Your task to perform on an android device: allow notifications from all sites in the chrome app Image 0: 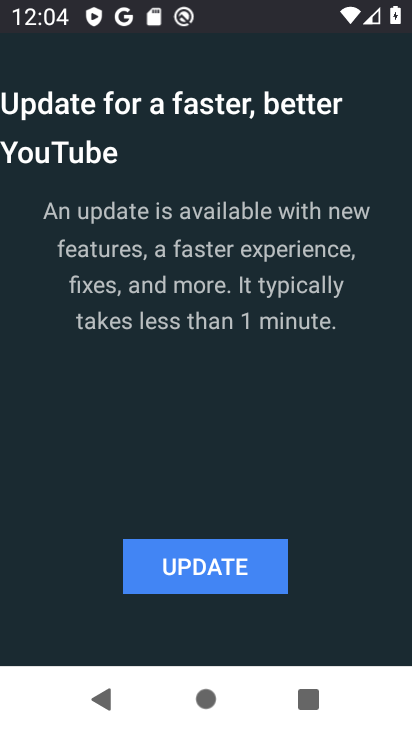
Step 0: press back button
Your task to perform on an android device: allow notifications from all sites in the chrome app Image 1: 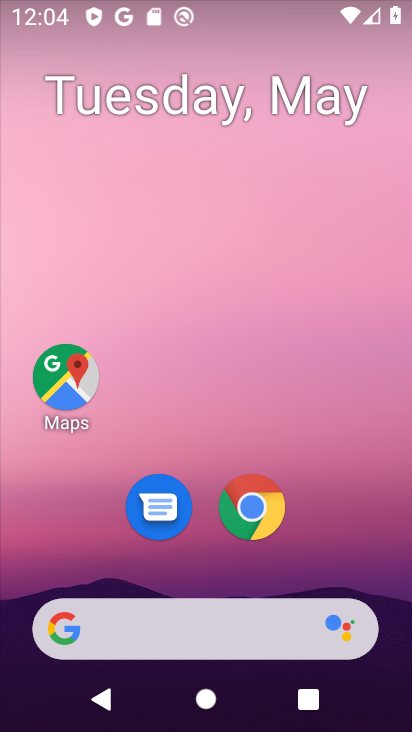
Step 1: drag from (374, 504) to (392, 207)
Your task to perform on an android device: allow notifications from all sites in the chrome app Image 2: 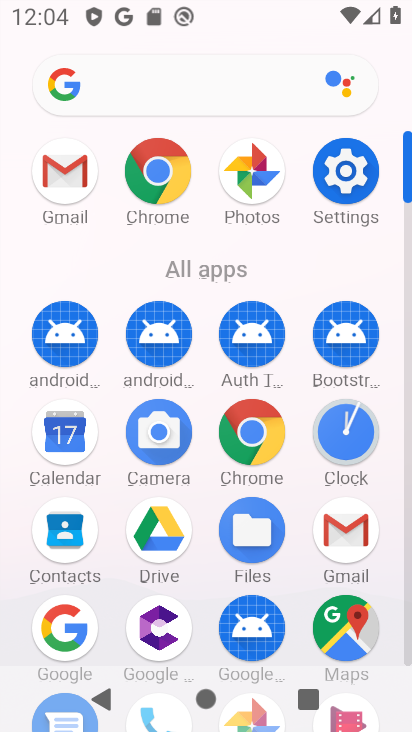
Step 2: click (261, 427)
Your task to perform on an android device: allow notifications from all sites in the chrome app Image 3: 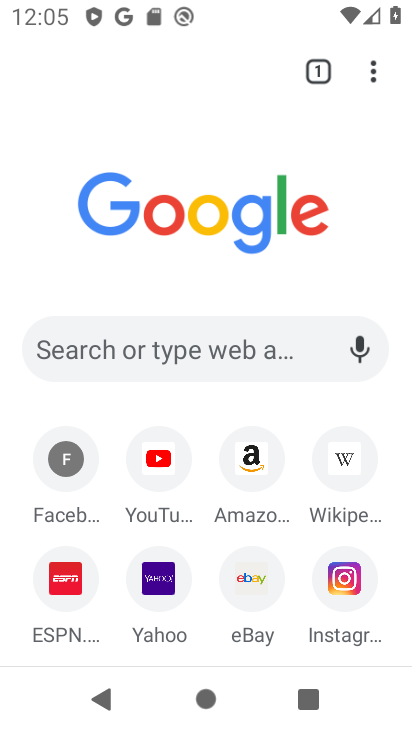
Step 3: click (371, 77)
Your task to perform on an android device: allow notifications from all sites in the chrome app Image 4: 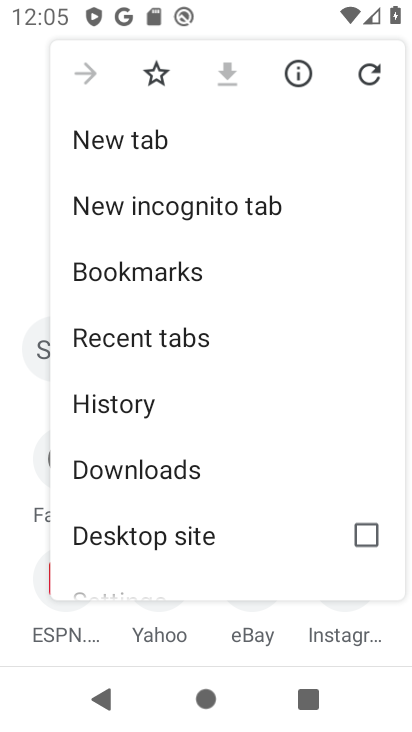
Step 4: drag from (265, 494) to (296, 318)
Your task to perform on an android device: allow notifications from all sites in the chrome app Image 5: 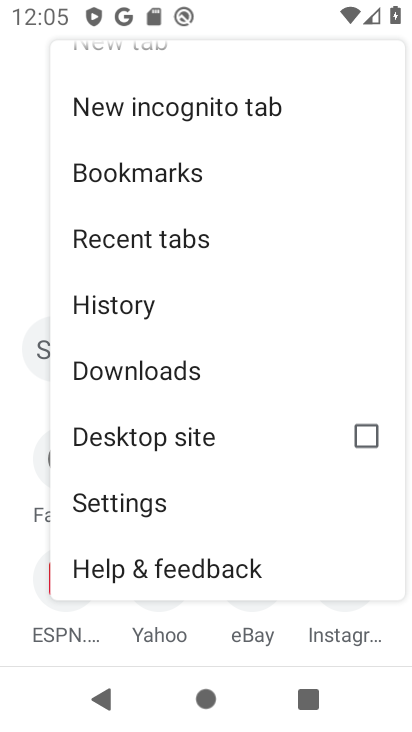
Step 5: drag from (274, 461) to (269, 329)
Your task to perform on an android device: allow notifications from all sites in the chrome app Image 6: 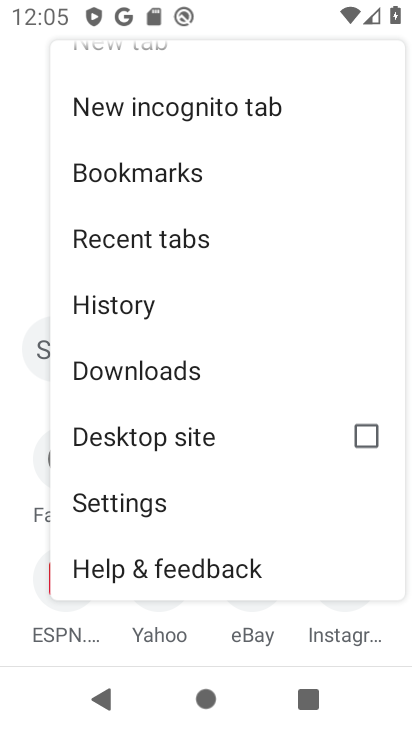
Step 6: click (150, 517)
Your task to perform on an android device: allow notifications from all sites in the chrome app Image 7: 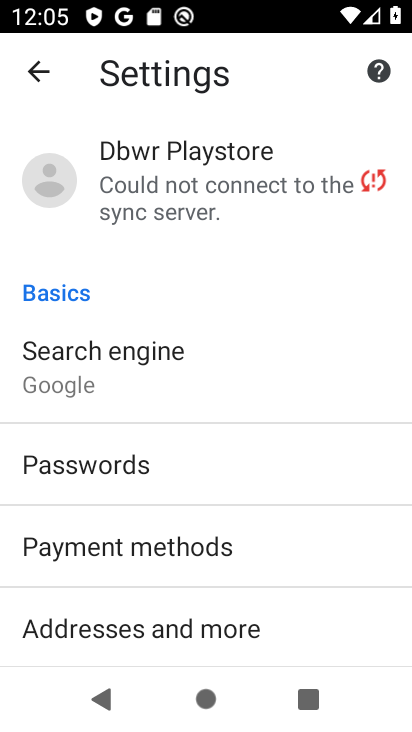
Step 7: drag from (329, 600) to (339, 397)
Your task to perform on an android device: allow notifications from all sites in the chrome app Image 8: 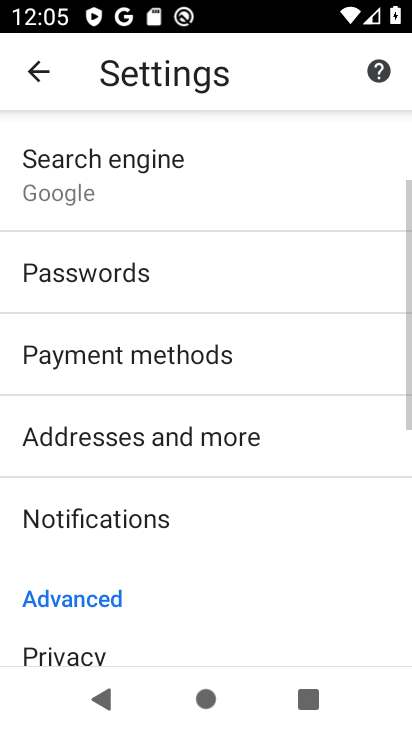
Step 8: drag from (334, 588) to (329, 433)
Your task to perform on an android device: allow notifications from all sites in the chrome app Image 9: 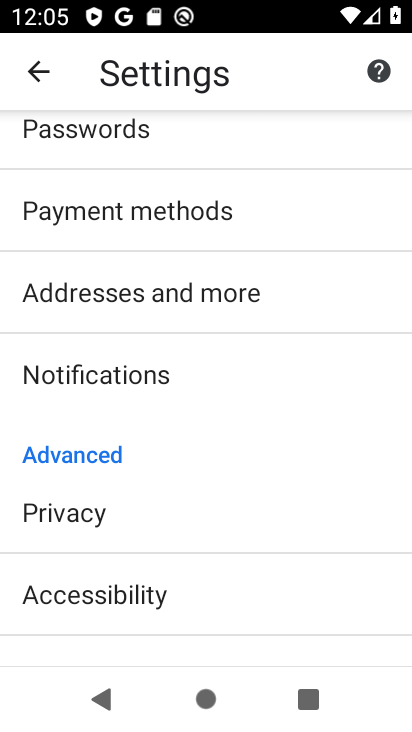
Step 9: drag from (322, 592) to (332, 444)
Your task to perform on an android device: allow notifications from all sites in the chrome app Image 10: 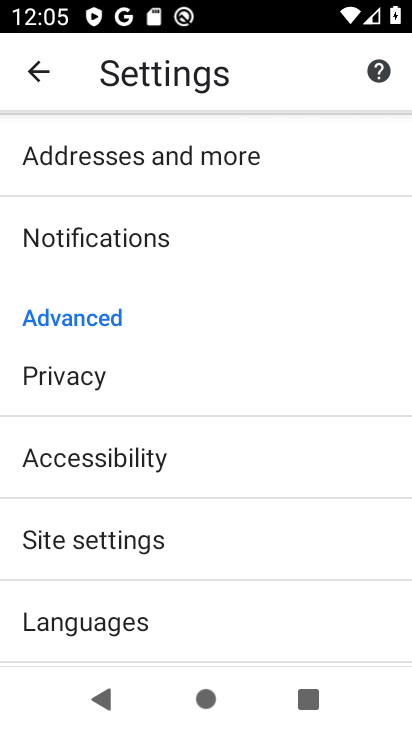
Step 10: drag from (286, 559) to (286, 395)
Your task to perform on an android device: allow notifications from all sites in the chrome app Image 11: 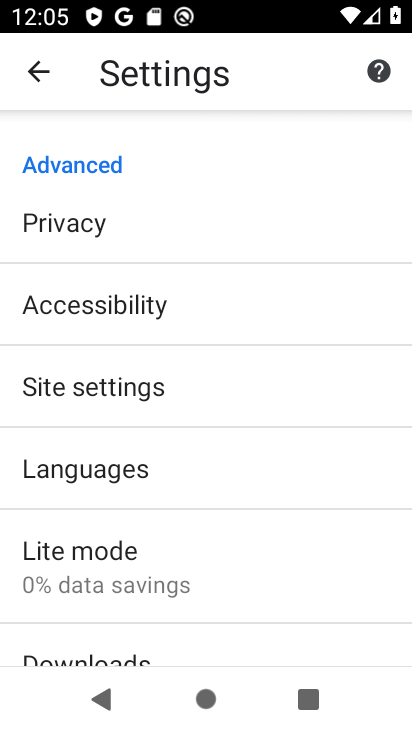
Step 11: drag from (286, 558) to (303, 373)
Your task to perform on an android device: allow notifications from all sites in the chrome app Image 12: 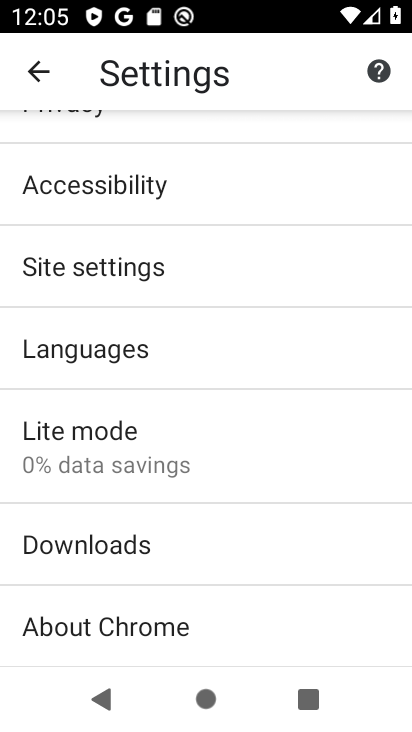
Step 12: drag from (271, 595) to (287, 450)
Your task to perform on an android device: allow notifications from all sites in the chrome app Image 13: 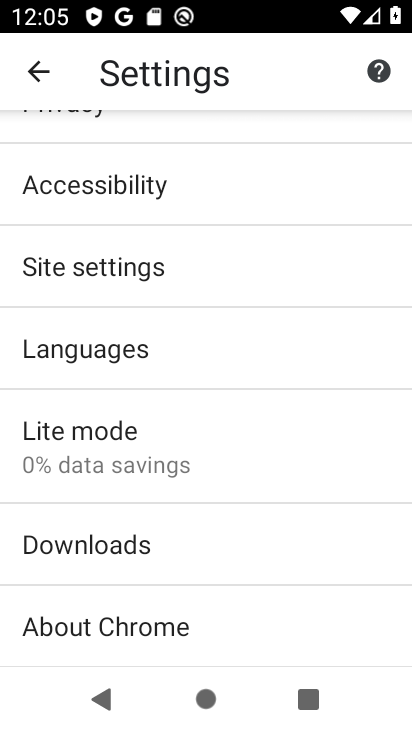
Step 13: click (174, 278)
Your task to perform on an android device: allow notifications from all sites in the chrome app Image 14: 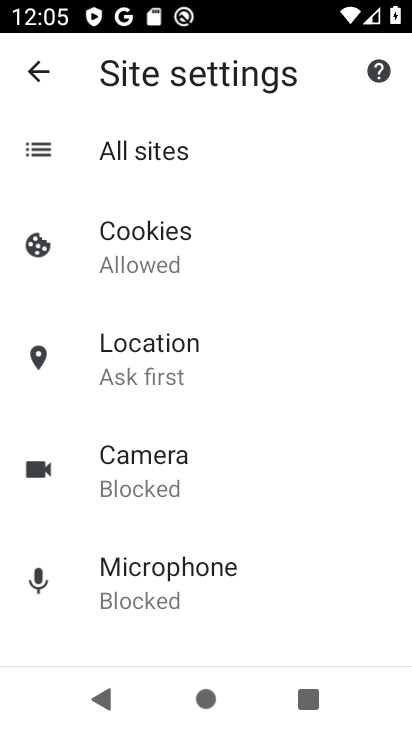
Step 14: drag from (327, 577) to (330, 382)
Your task to perform on an android device: allow notifications from all sites in the chrome app Image 15: 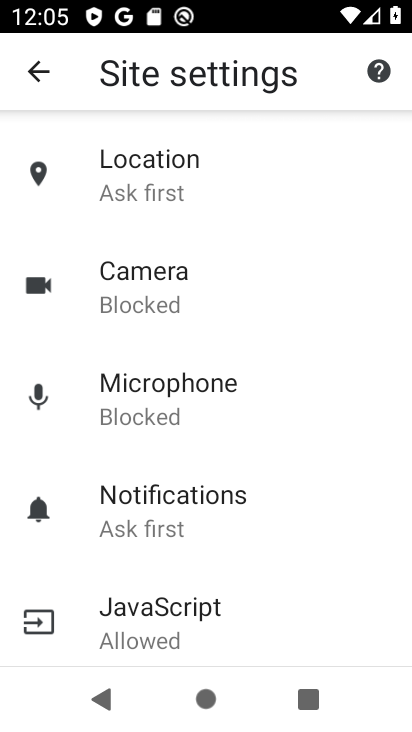
Step 15: drag from (303, 575) to (320, 430)
Your task to perform on an android device: allow notifications from all sites in the chrome app Image 16: 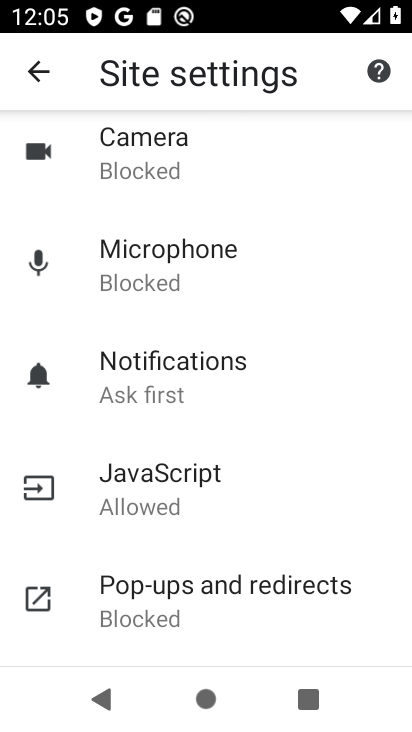
Step 16: drag from (315, 631) to (325, 457)
Your task to perform on an android device: allow notifications from all sites in the chrome app Image 17: 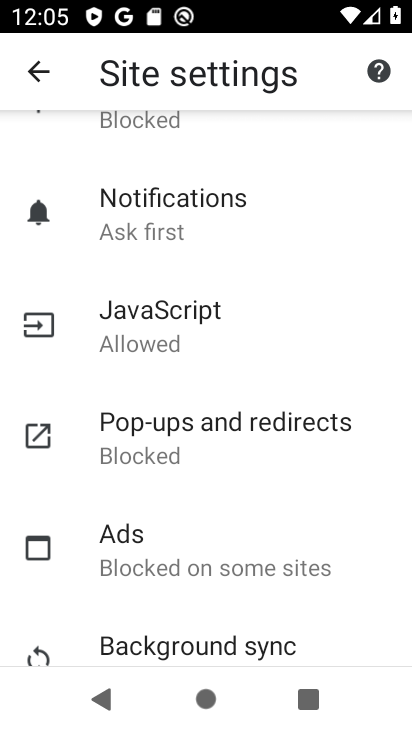
Step 17: drag from (337, 628) to (358, 478)
Your task to perform on an android device: allow notifications from all sites in the chrome app Image 18: 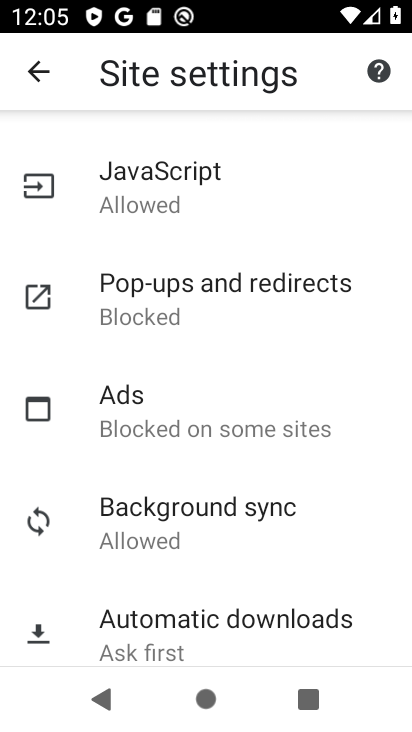
Step 18: drag from (333, 577) to (353, 450)
Your task to perform on an android device: allow notifications from all sites in the chrome app Image 19: 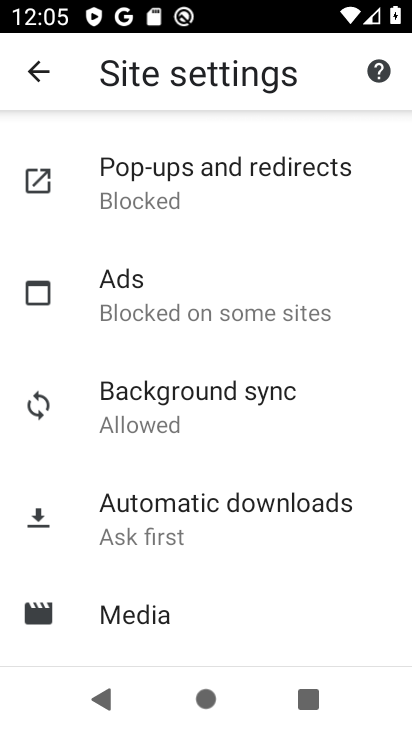
Step 19: drag from (338, 523) to (347, 364)
Your task to perform on an android device: allow notifications from all sites in the chrome app Image 20: 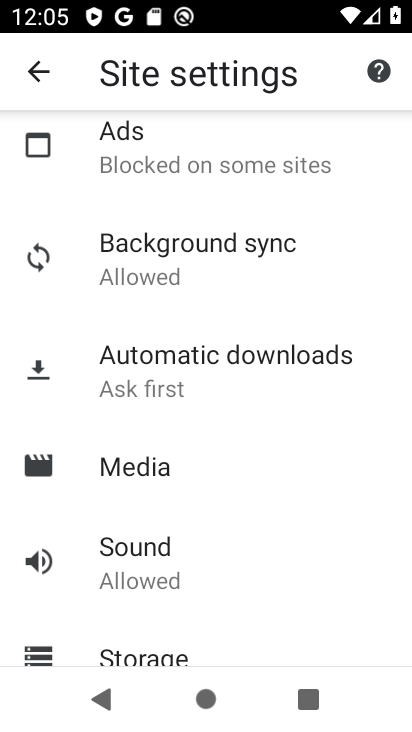
Step 20: drag from (326, 587) to (357, 407)
Your task to perform on an android device: allow notifications from all sites in the chrome app Image 21: 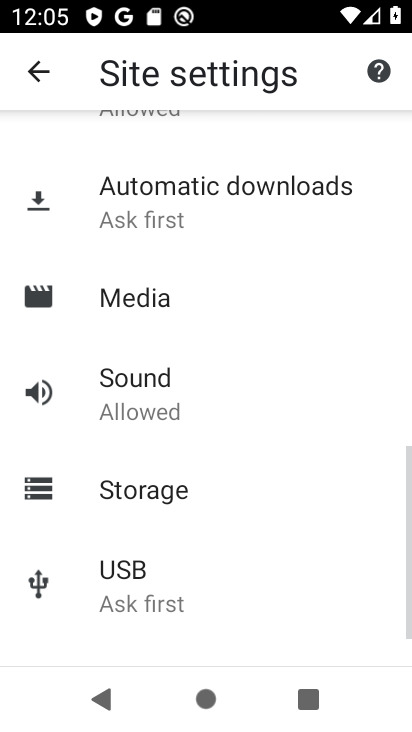
Step 21: drag from (309, 594) to (328, 427)
Your task to perform on an android device: allow notifications from all sites in the chrome app Image 22: 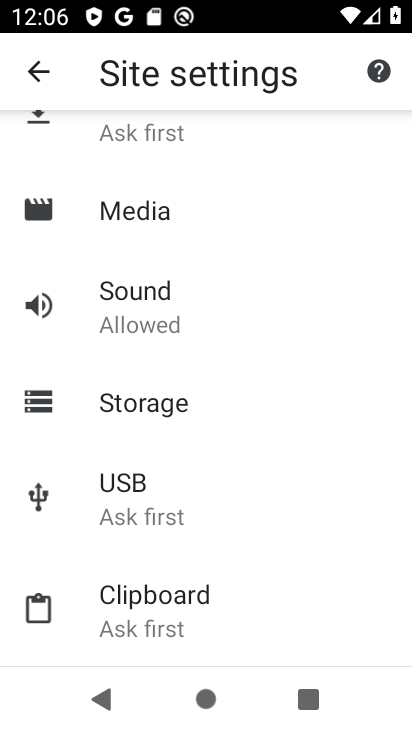
Step 22: drag from (321, 326) to (314, 486)
Your task to perform on an android device: allow notifications from all sites in the chrome app Image 23: 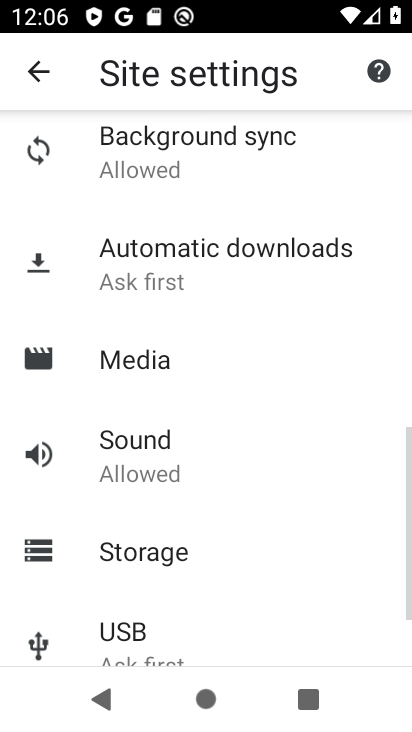
Step 23: drag from (319, 302) to (311, 501)
Your task to perform on an android device: allow notifications from all sites in the chrome app Image 24: 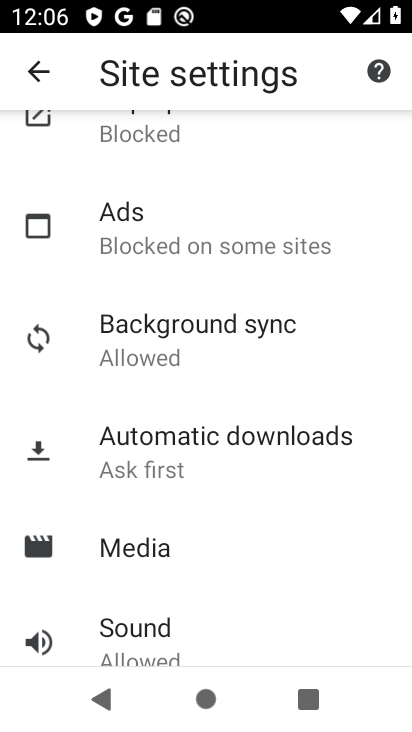
Step 24: drag from (368, 231) to (350, 492)
Your task to perform on an android device: allow notifications from all sites in the chrome app Image 25: 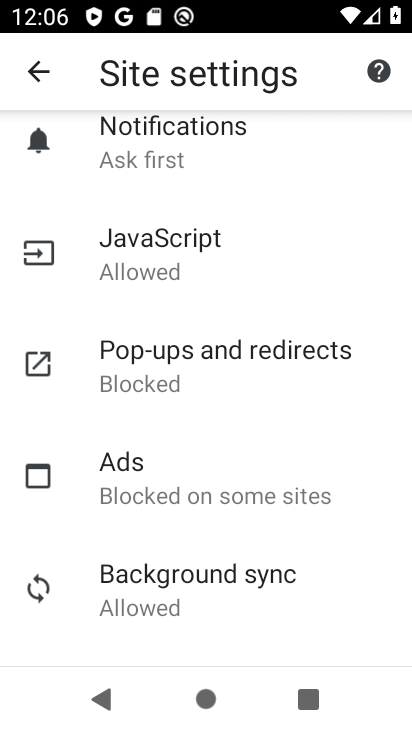
Step 25: drag from (346, 235) to (326, 388)
Your task to perform on an android device: allow notifications from all sites in the chrome app Image 26: 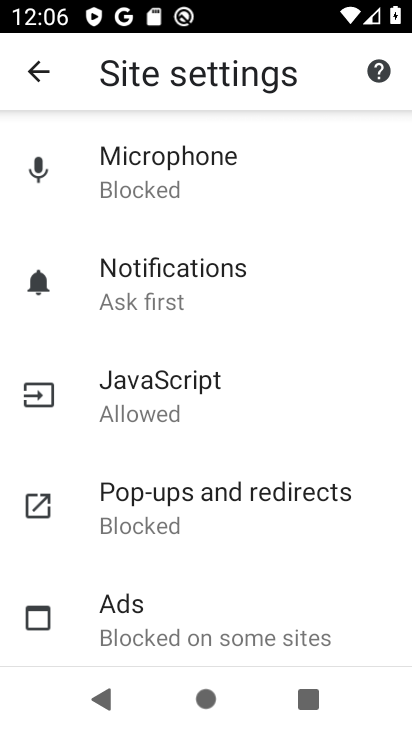
Step 26: click (164, 289)
Your task to perform on an android device: allow notifications from all sites in the chrome app Image 27: 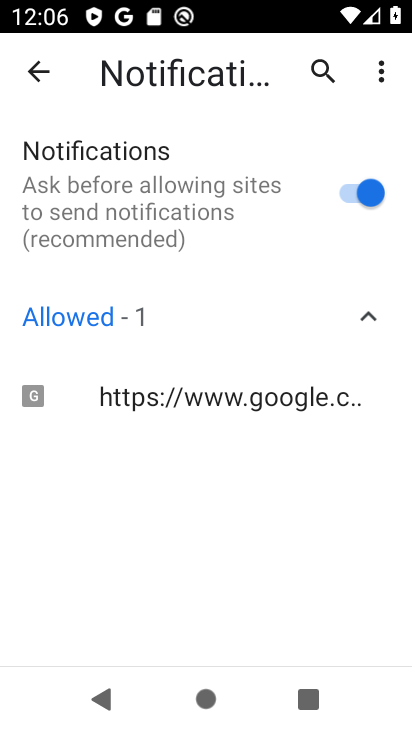
Step 27: task complete